Your task to perform on an android device: Add "razer blackwidow" to the cart on newegg, then select checkout. Image 0: 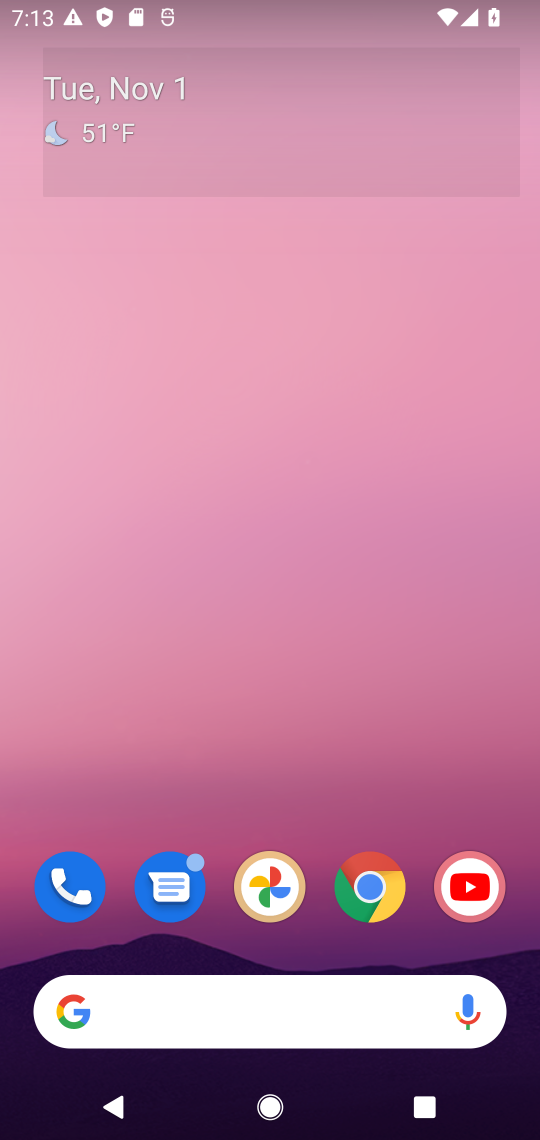
Step 0: drag from (197, 927) to (309, 89)
Your task to perform on an android device: Add "razer blackwidow" to the cart on newegg, then select checkout. Image 1: 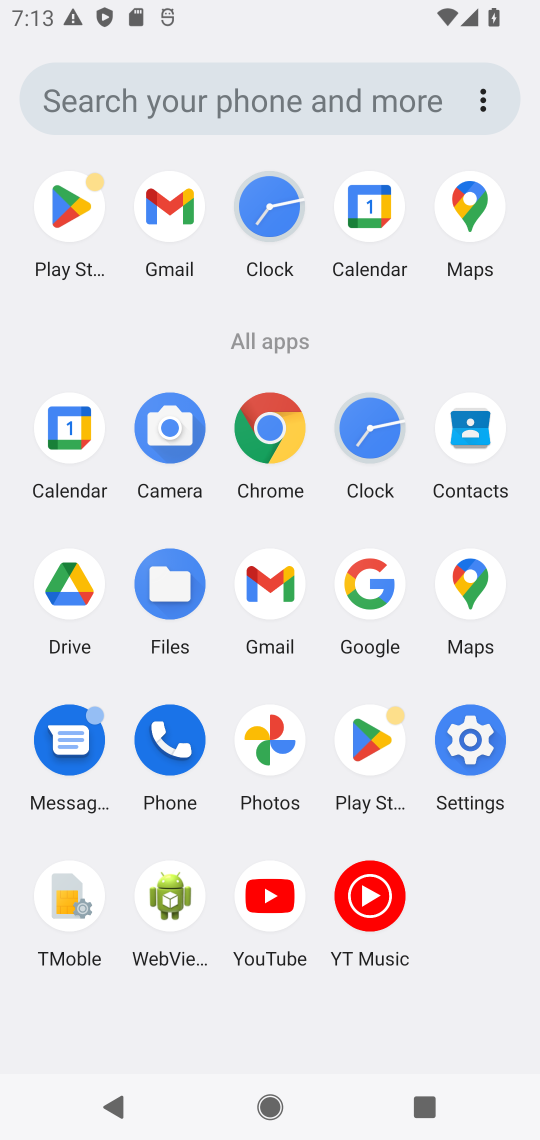
Step 1: click (374, 584)
Your task to perform on an android device: Add "razer blackwidow" to the cart on newegg, then select checkout. Image 2: 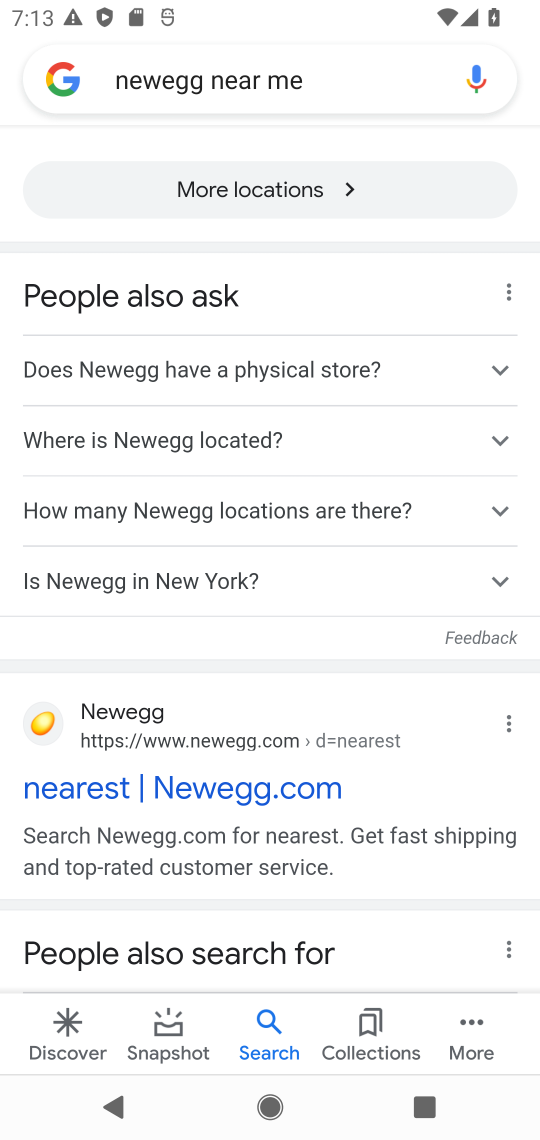
Step 2: click (231, 67)
Your task to perform on an android device: Add "razer blackwidow" to the cart on newegg, then select checkout. Image 3: 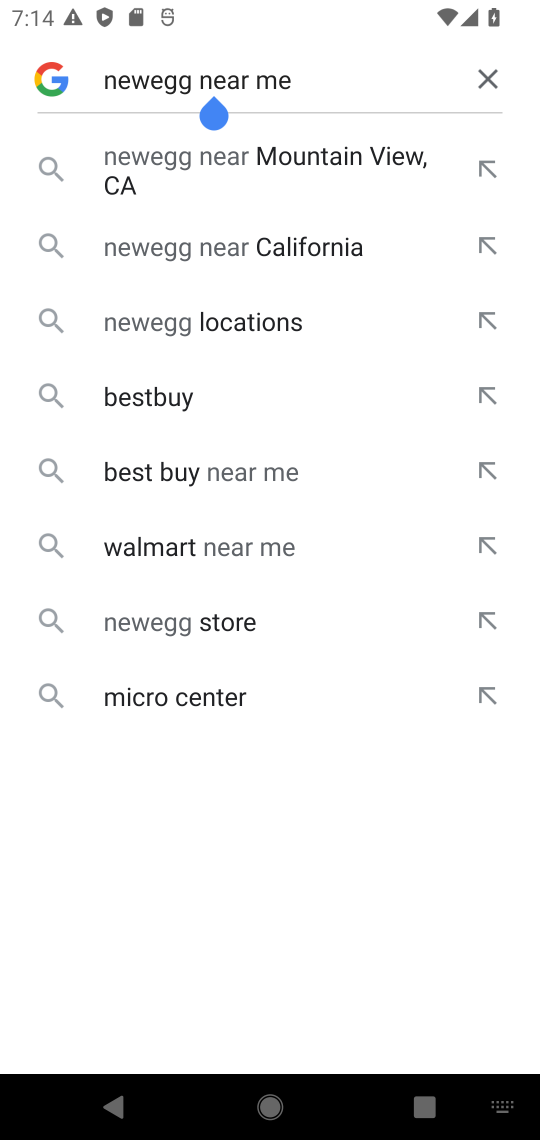
Step 3: click (495, 80)
Your task to perform on an android device: Add "razer blackwidow" to the cart on newegg, then select checkout. Image 4: 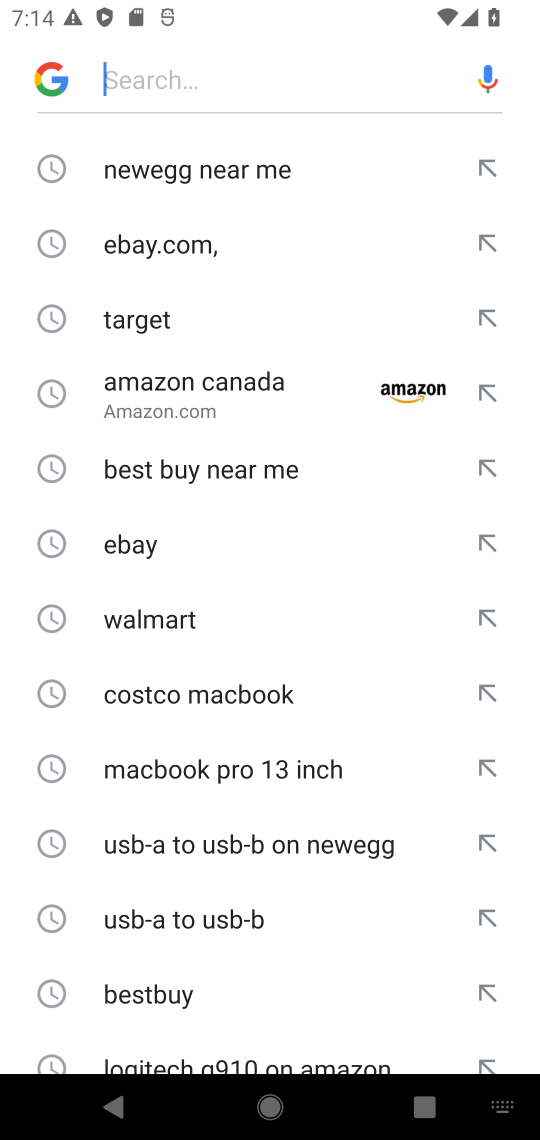
Step 4: click (183, 175)
Your task to perform on an android device: Add "razer blackwidow" to the cart on newegg, then select checkout. Image 5: 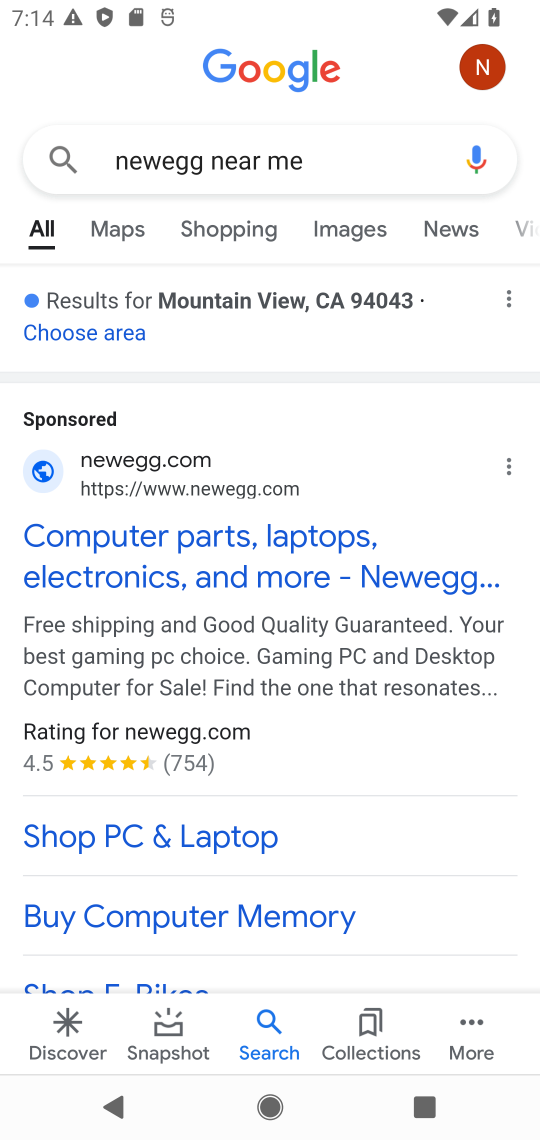
Step 5: drag from (244, 788) to (276, 335)
Your task to perform on an android device: Add "razer blackwidow" to the cart on newegg, then select checkout. Image 6: 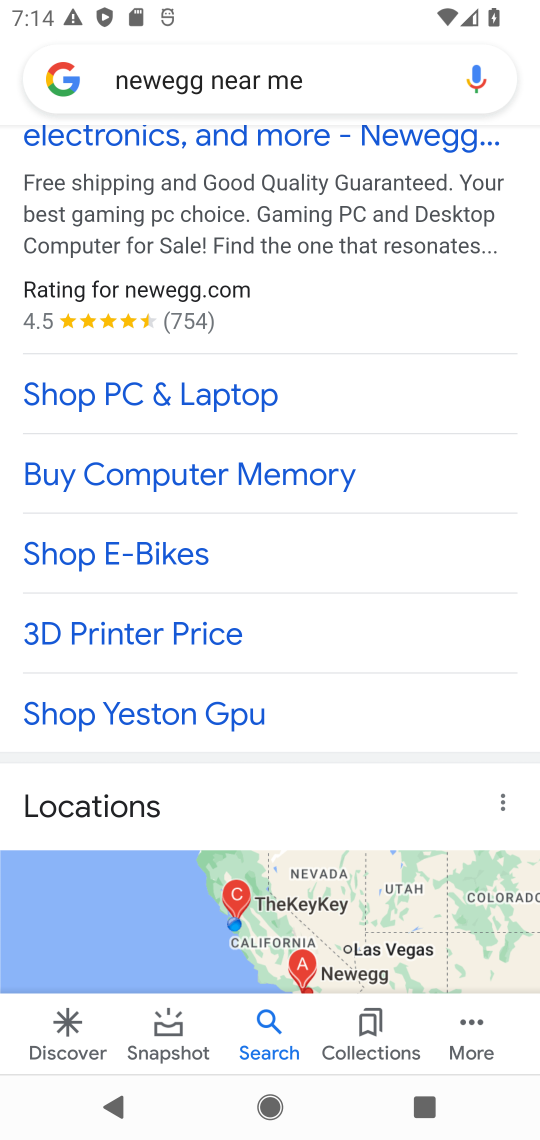
Step 6: drag from (170, 801) to (200, 352)
Your task to perform on an android device: Add "razer blackwidow" to the cart on newegg, then select checkout. Image 7: 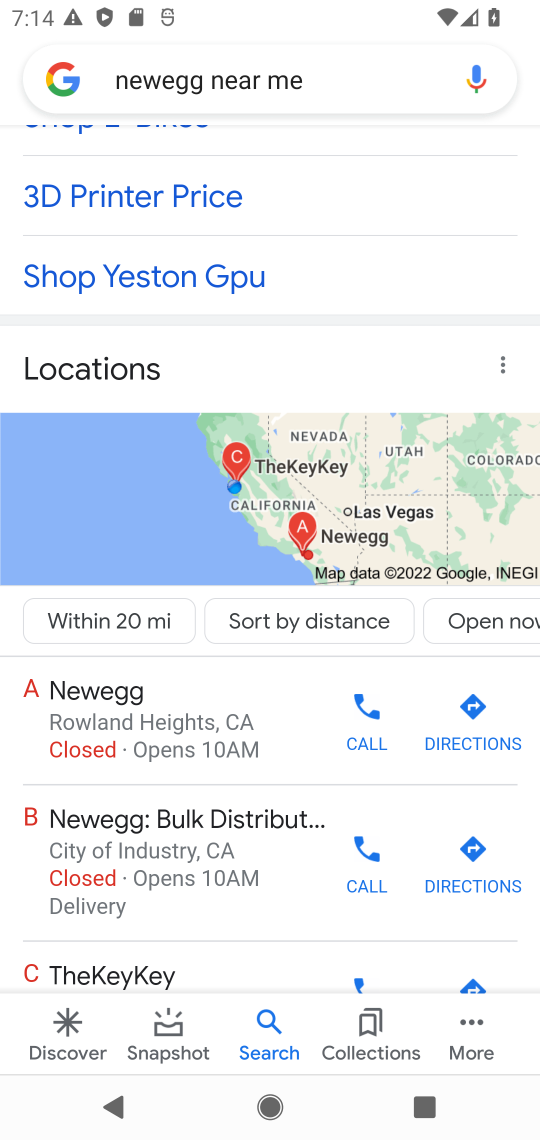
Step 7: drag from (153, 821) to (200, 298)
Your task to perform on an android device: Add "razer blackwidow" to the cart on newegg, then select checkout. Image 8: 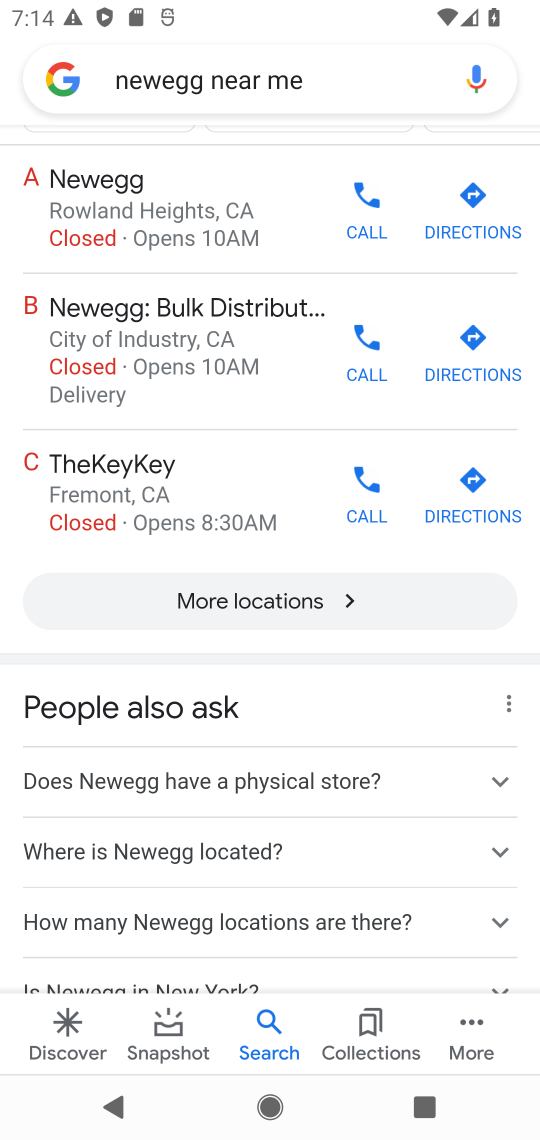
Step 8: drag from (155, 922) to (189, 404)
Your task to perform on an android device: Add "razer blackwidow" to the cart on newegg, then select checkout. Image 9: 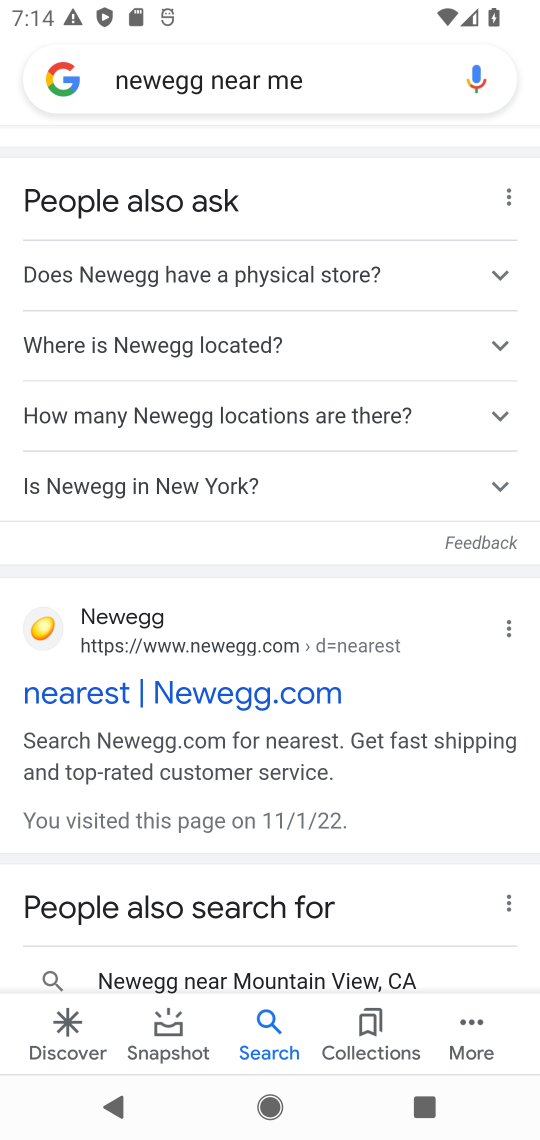
Step 9: click (47, 633)
Your task to perform on an android device: Add "razer blackwidow" to the cart on newegg, then select checkout. Image 10: 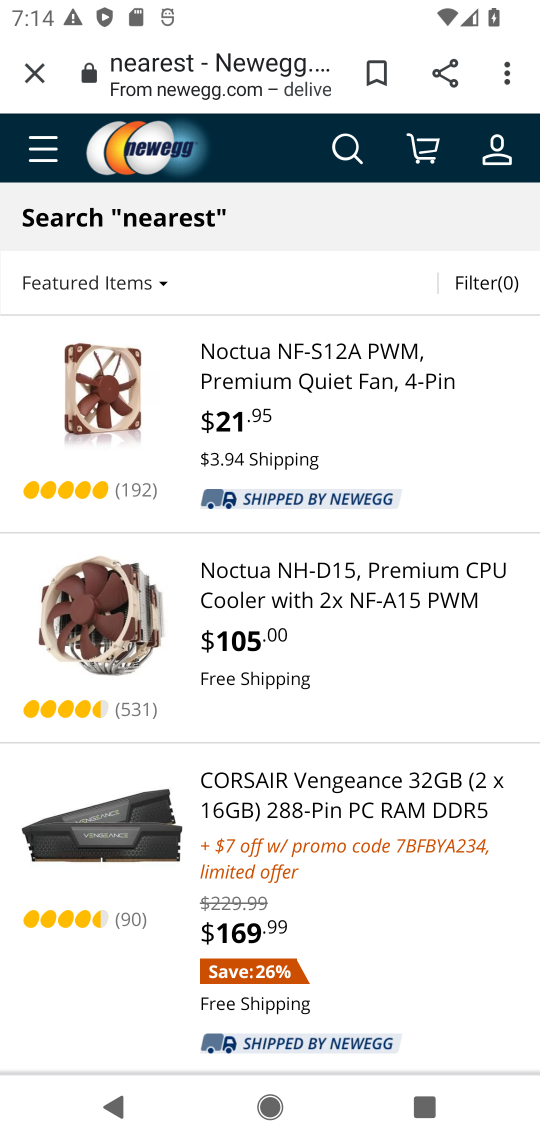
Step 10: click (341, 137)
Your task to perform on an android device: Add "razer blackwidow" to the cart on newegg, then select checkout. Image 11: 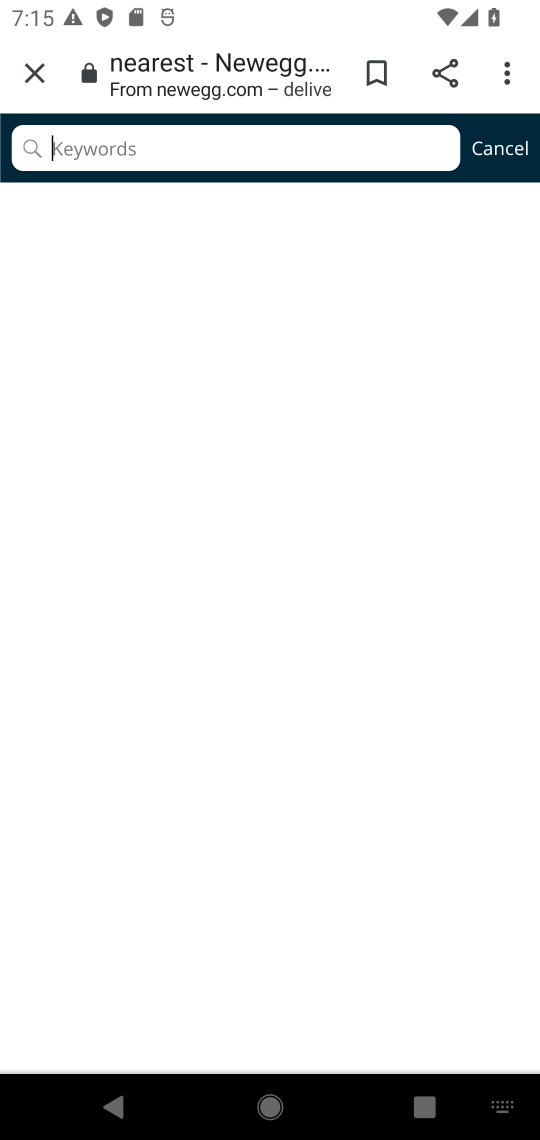
Step 11: click (279, 141)
Your task to perform on an android device: Add "razer blackwidow" to the cart on newegg, then select checkout. Image 12: 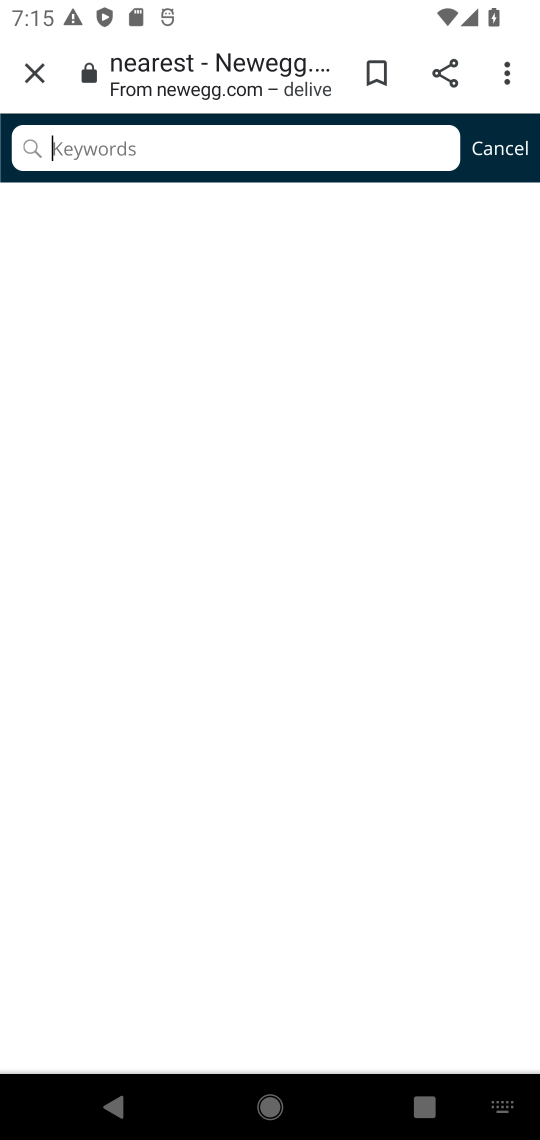
Step 12: type "razer blackwidow "
Your task to perform on an android device: Add "razer blackwidow" to the cart on newegg, then select checkout. Image 13: 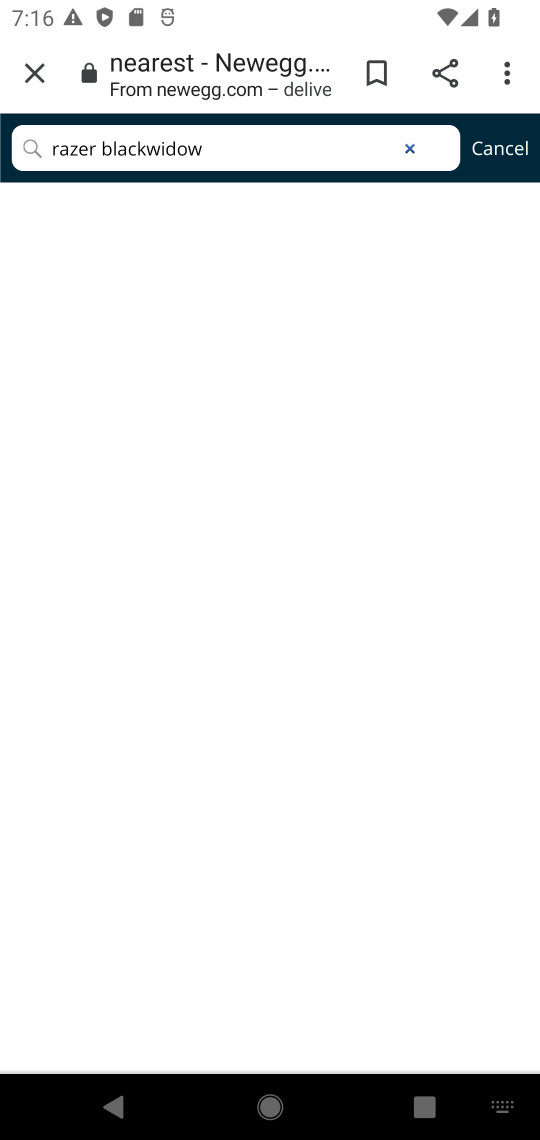
Step 13: task complete